Your task to perform on an android device: What's on my calendar today? Image 0: 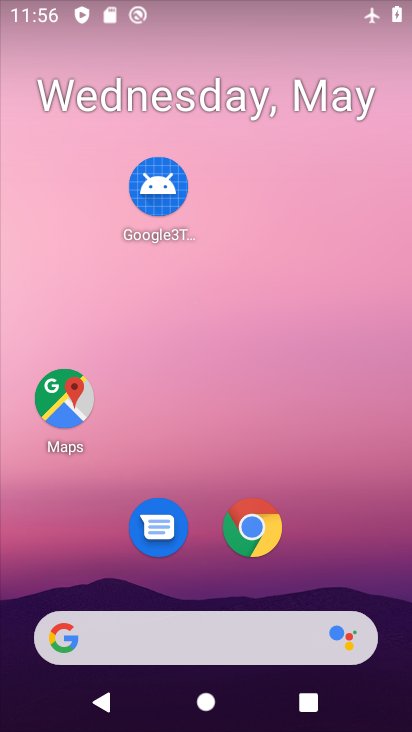
Step 0: drag from (209, 539) to (268, 159)
Your task to perform on an android device: What's on my calendar today? Image 1: 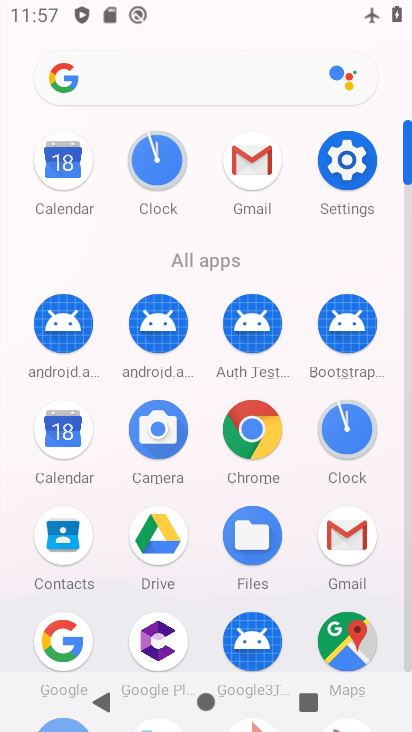
Step 1: click (61, 416)
Your task to perform on an android device: What's on my calendar today? Image 2: 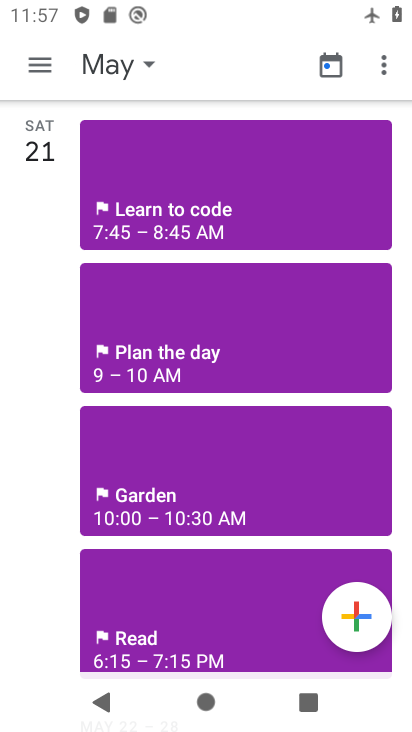
Step 2: drag from (48, 129) to (40, 722)
Your task to perform on an android device: What's on my calendar today? Image 3: 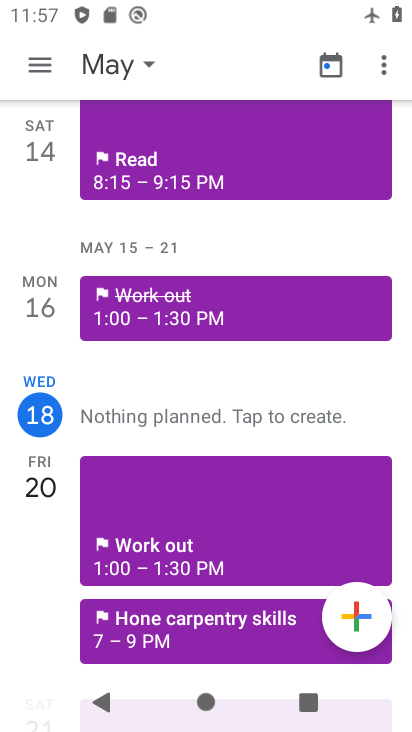
Step 3: click (45, 402)
Your task to perform on an android device: What's on my calendar today? Image 4: 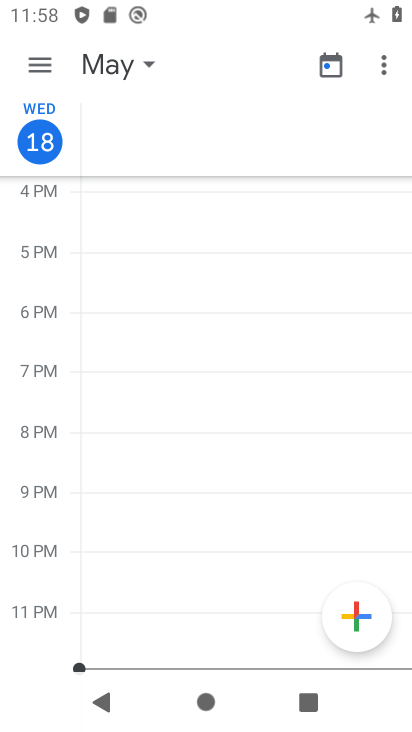
Step 4: task complete